Your task to perform on an android device: Open settings on Google Maps Image 0: 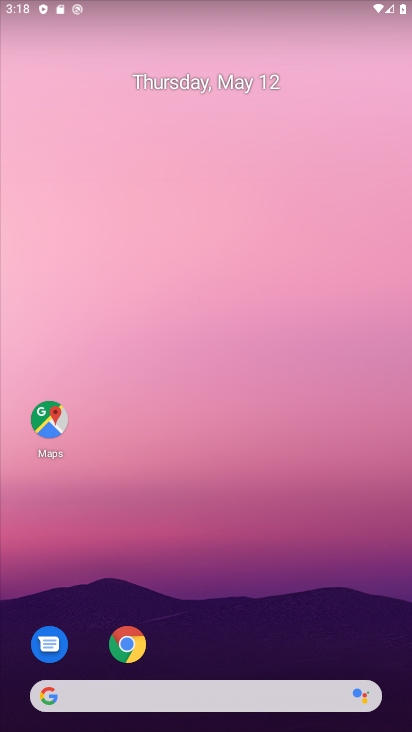
Step 0: click (47, 423)
Your task to perform on an android device: Open settings on Google Maps Image 1: 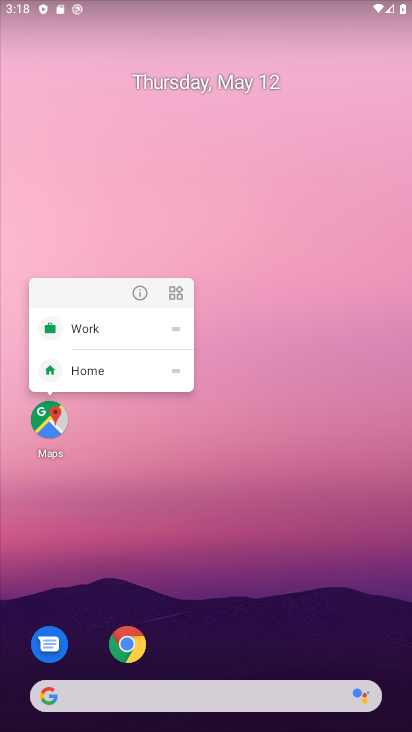
Step 1: click (46, 424)
Your task to perform on an android device: Open settings on Google Maps Image 2: 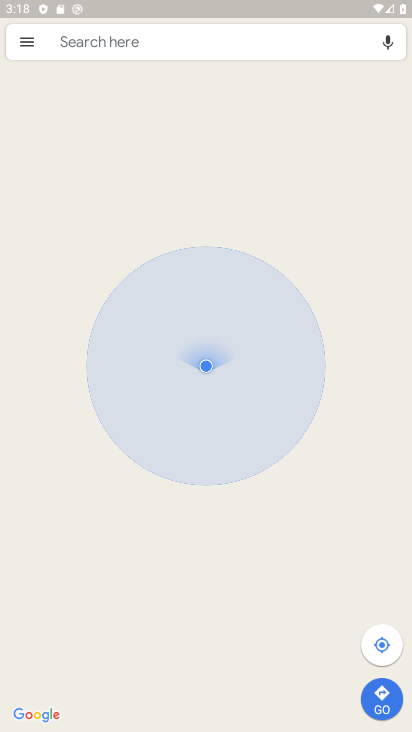
Step 2: click (31, 42)
Your task to perform on an android device: Open settings on Google Maps Image 3: 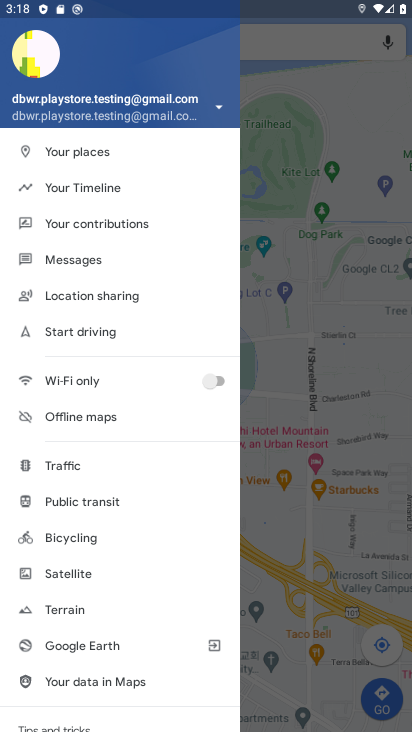
Step 3: drag from (111, 650) to (131, 222)
Your task to perform on an android device: Open settings on Google Maps Image 4: 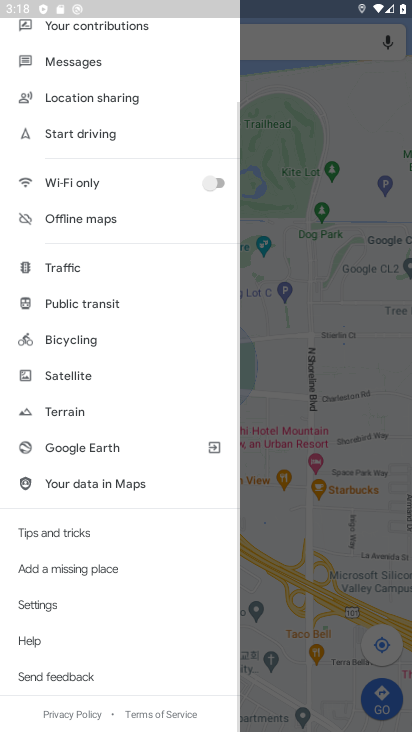
Step 4: click (55, 606)
Your task to perform on an android device: Open settings on Google Maps Image 5: 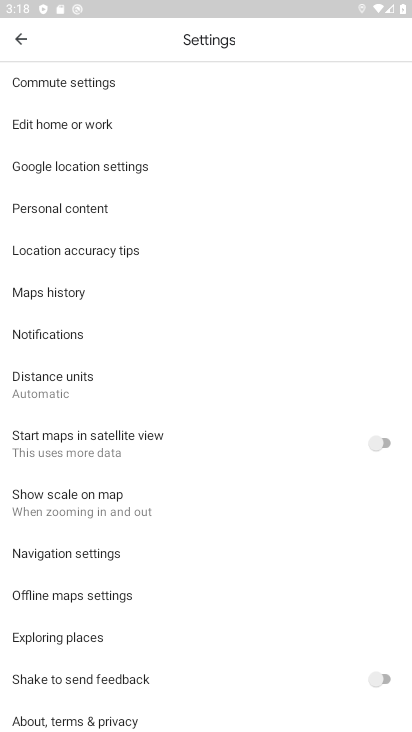
Step 5: task complete